Your task to perform on an android device: Open Google Maps Image 0: 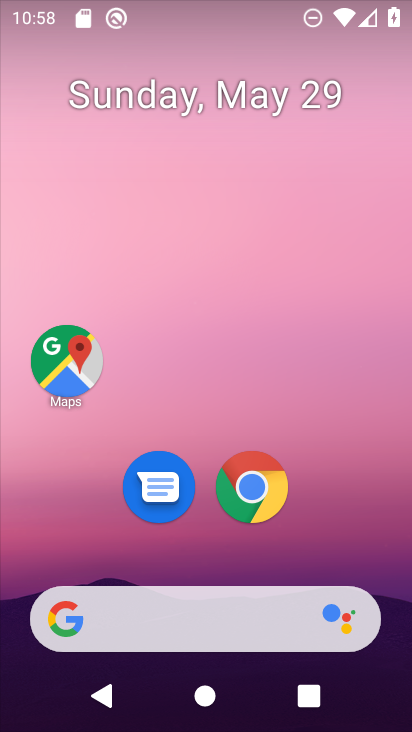
Step 0: click (60, 365)
Your task to perform on an android device: Open Google Maps Image 1: 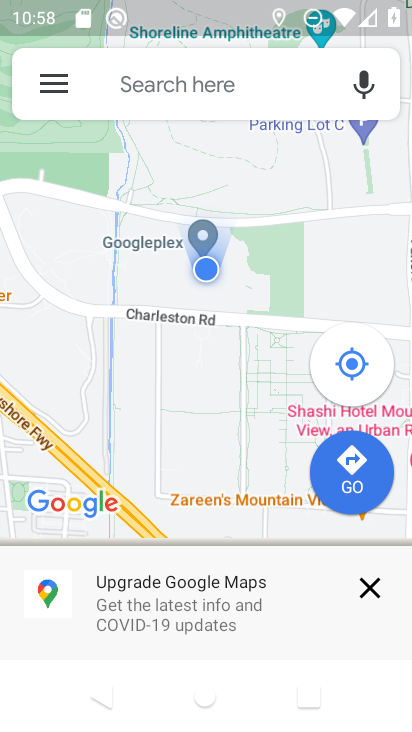
Step 1: click (366, 596)
Your task to perform on an android device: Open Google Maps Image 2: 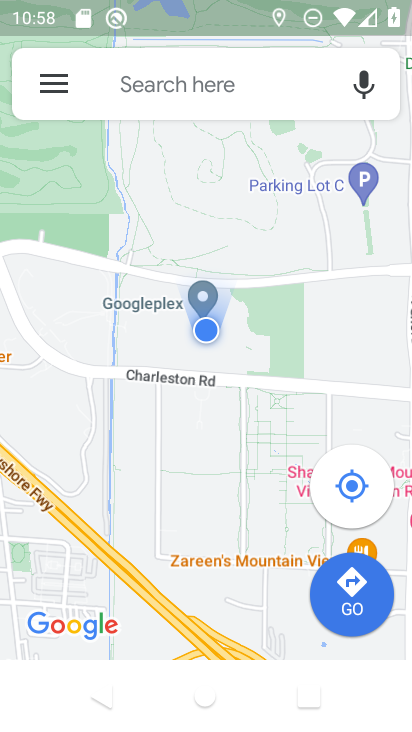
Step 2: click (53, 88)
Your task to perform on an android device: Open Google Maps Image 3: 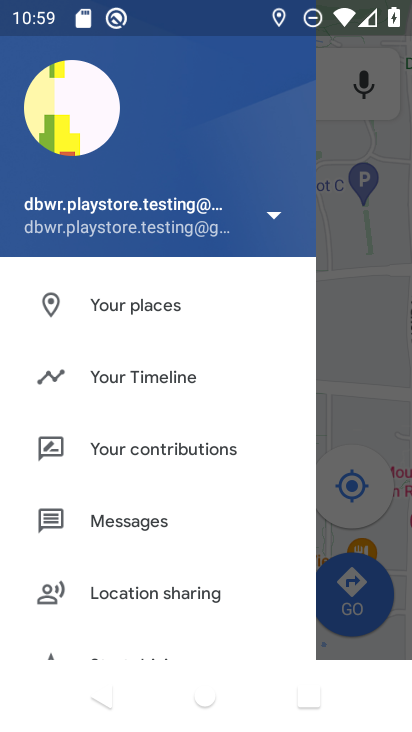
Step 3: task complete